Your task to perform on an android device: Go to privacy settings Image 0: 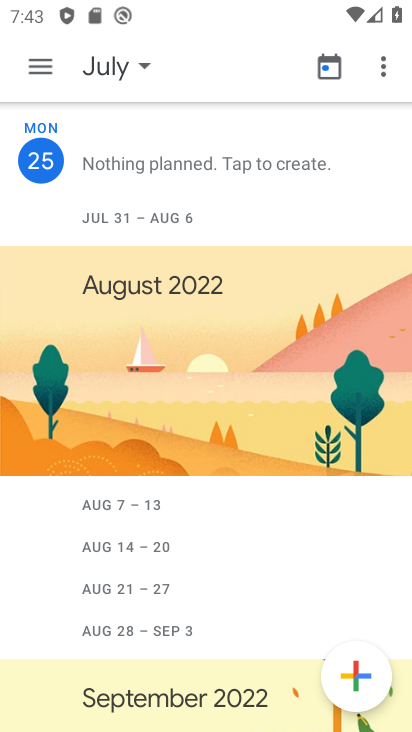
Step 0: press home button
Your task to perform on an android device: Go to privacy settings Image 1: 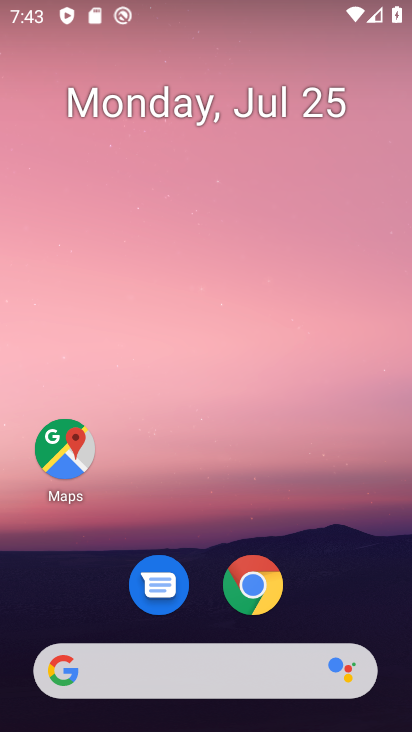
Step 1: drag from (236, 633) to (237, 29)
Your task to perform on an android device: Go to privacy settings Image 2: 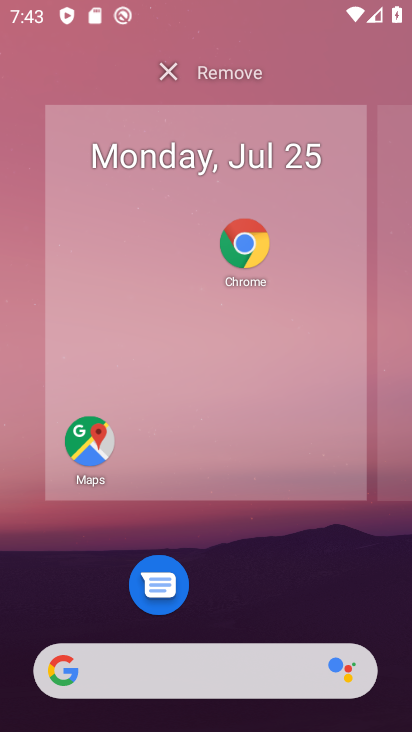
Step 2: click (221, 570)
Your task to perform on an android device: Go to privacy settings Image 3: 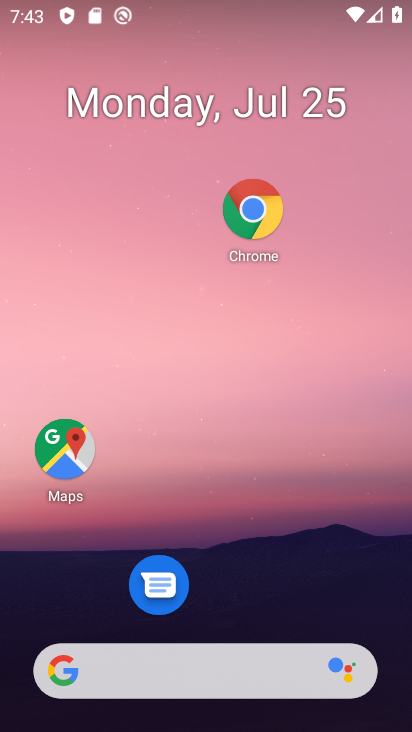
Step 3: drag from (230, 632) to (218, 48)
Your task to perform on an android device: Go to privacy settings Image 4: 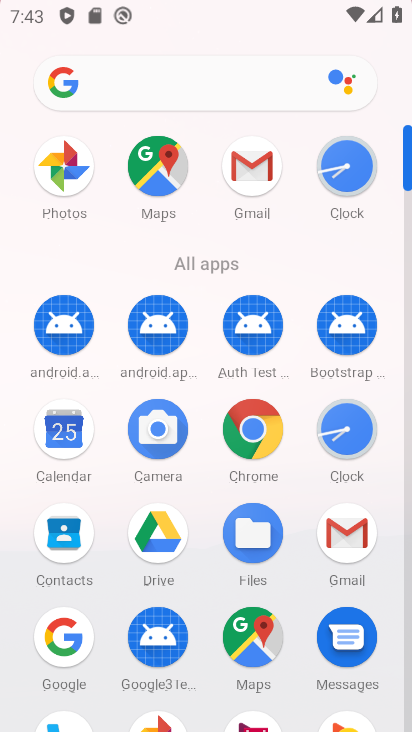
Step 4: click (218, 48)
Your task to perform on an android device: Go to privacy settings Image 5: 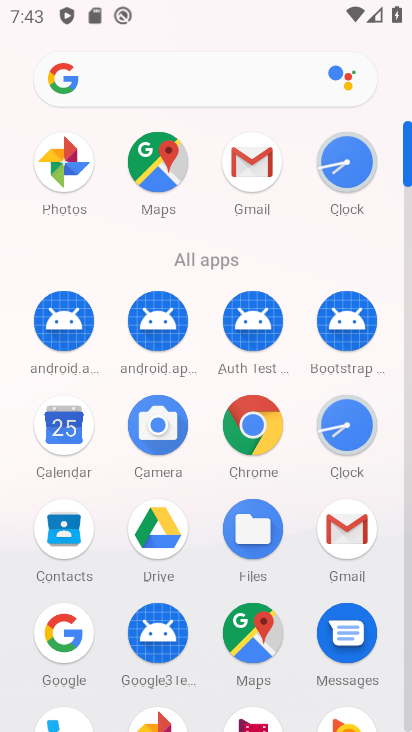
Step 5: click (216, 56)
Your task to perform on an android device: Go to privacy settings Image 6: 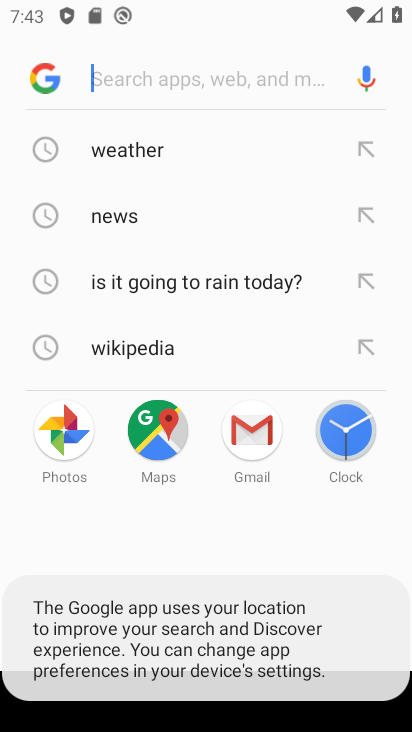
Step 6: press home button
Your task to perform on an android device: Go to privacy settings Image 7: 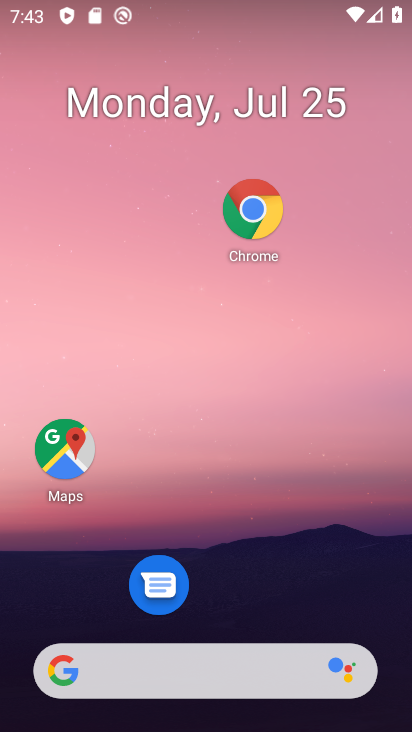
Step 7: drag from (197, 625) to (137, 171)
Your task to perform on an android device: Go to privacy settings Image 8: 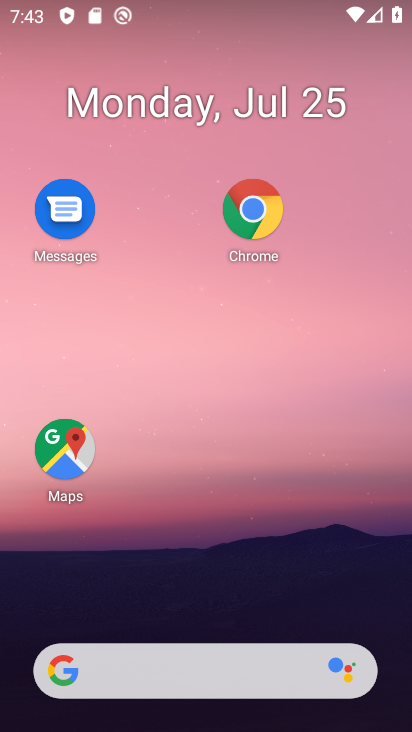
Step 8: drag from (201, 624) to (409, 643)
Your task to perform on an android device: Go to privacy settings Image 9: 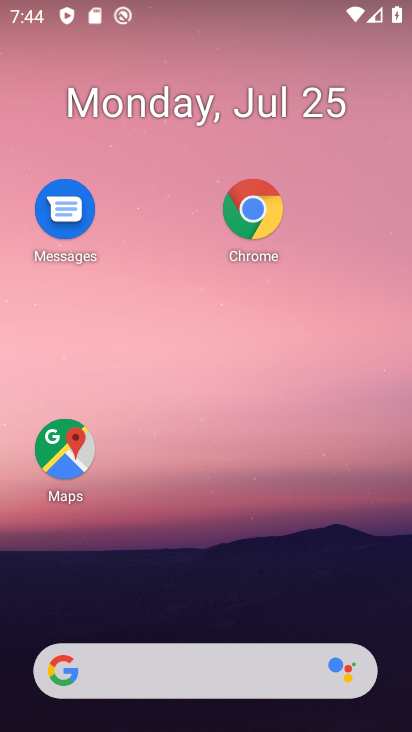
Step 9: drag from (219, 607) to (178, 335)
Your task to perform on an android device: Go to privacy settings Image 10: 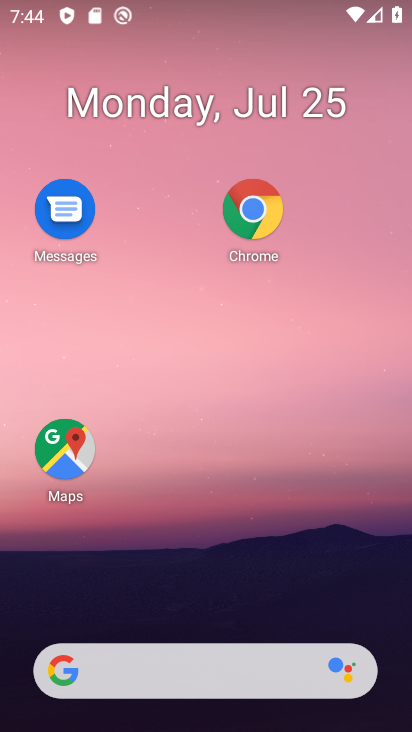
Step 10: drag from (182, 623) to (351, 16)
Your task to perform on an android device: Go to privacy settings Image 11: 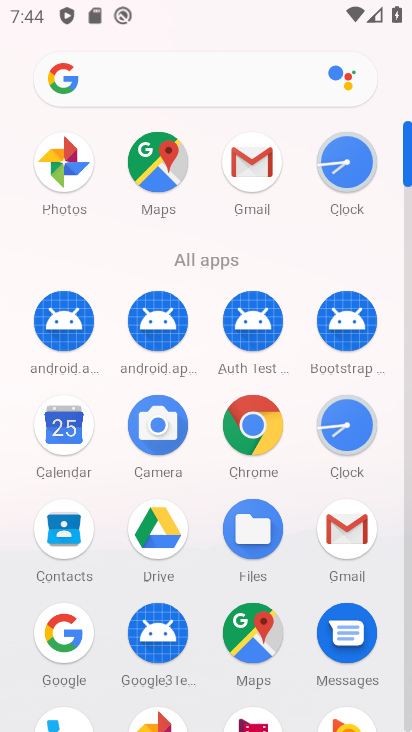
Step 11: drag from (212, 617) to (216, 34)
Your task to perform on an android device: Go to privacy settings Image 12: 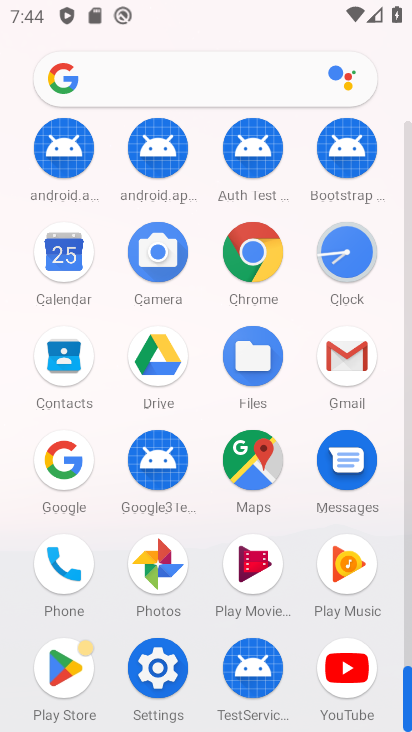
Step 12: click (152, 664)
Your task to perform on an android device: Go to privacy settings Image 13: 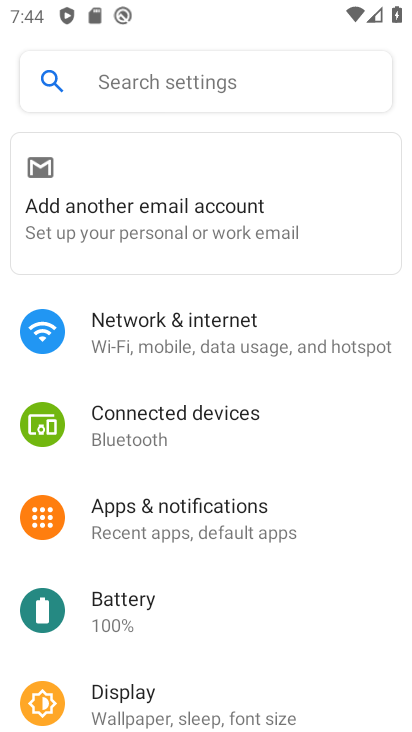
Step 13: drag from (152, 664) to (75, 80)
Your task to perform on an android device: Go to privacy settings Image 14: 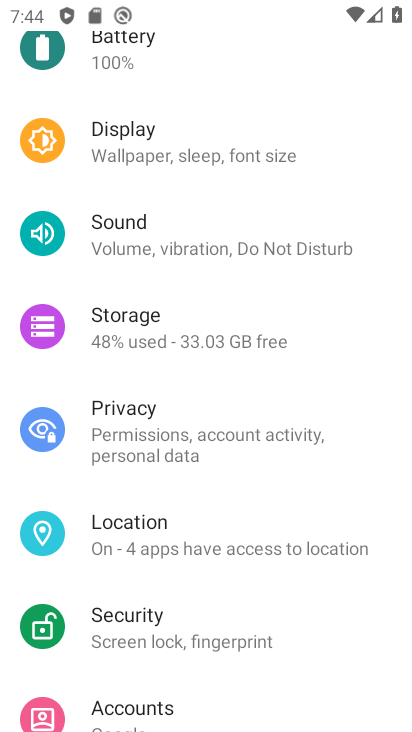
Step 14: click (128, 453)
Your task to perform on an android device: Go to privacy settings Image 15: 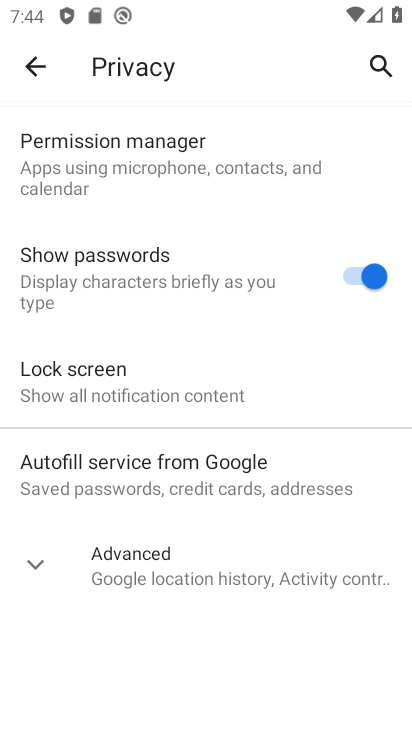
Step 15: click (119, 542)
Your task to perform on an android device: Go to privacy settings Image 16: 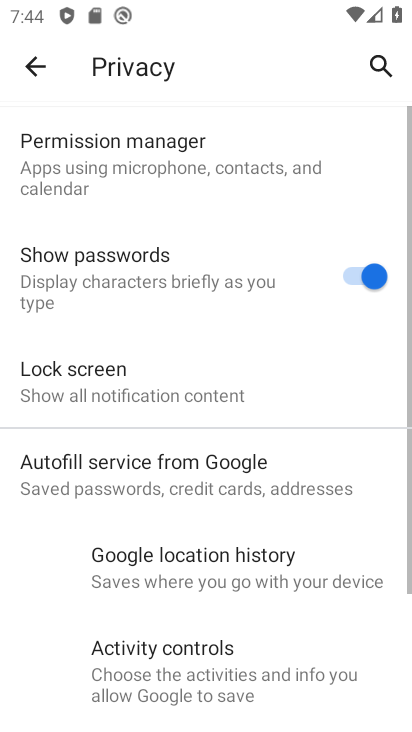
Step 16: task complete